Your task to perform on an android device: Search for jbl charge 4 on bestbuy.com, select the first entry, and add it to the cart. Image 0: 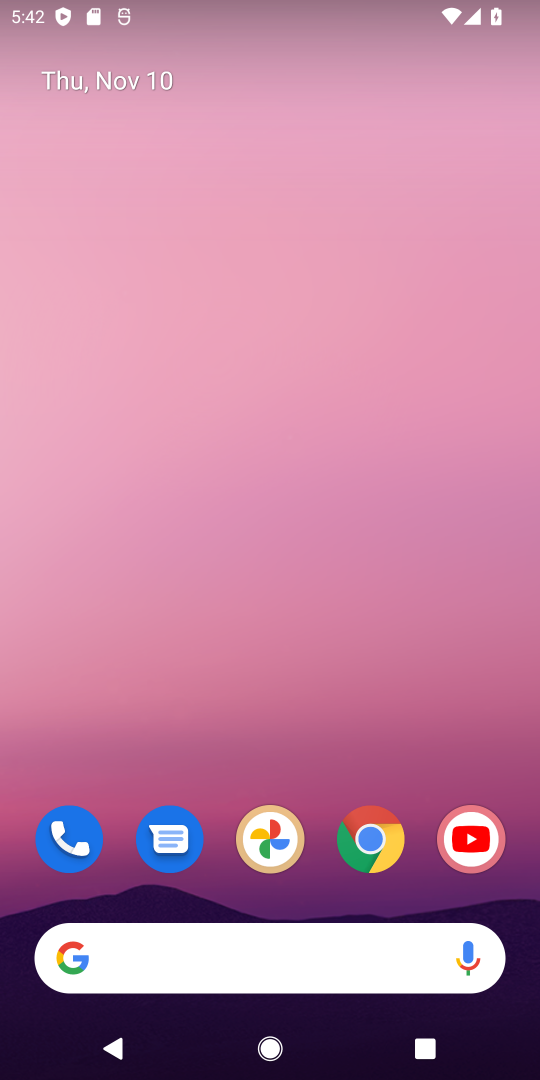
Step 0: click (373, 839)
Your task to perform on an android device: Search for jbl charge 4 on bestbuy.com, select the first entry, and add it to the cart. Image 1: 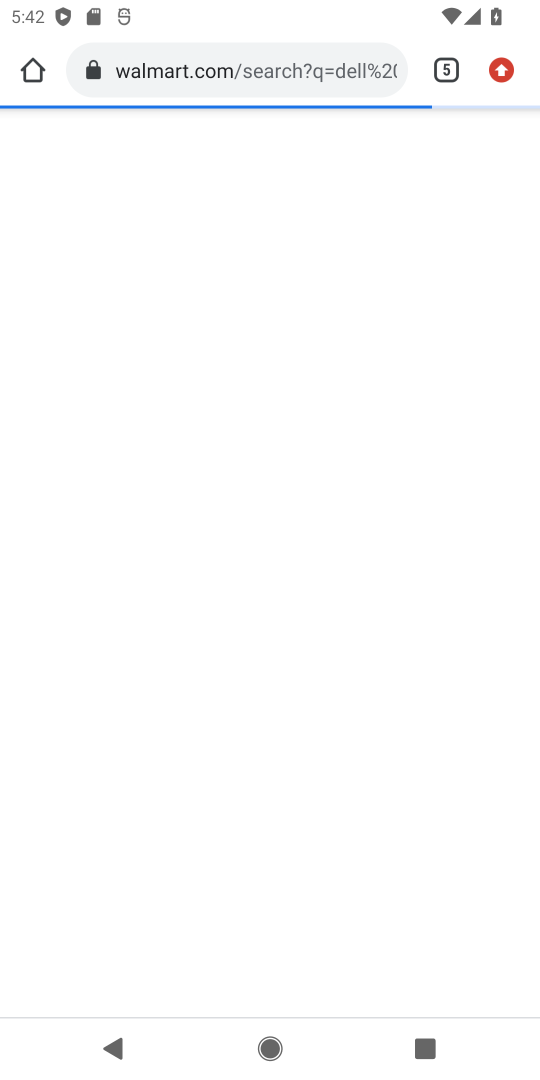
Step 1: click (446, 68)
Your task to perform on an android device: Search for jbl charge 4 on bestbuy.com, select the first entry, and add it to the cart. Image 2: 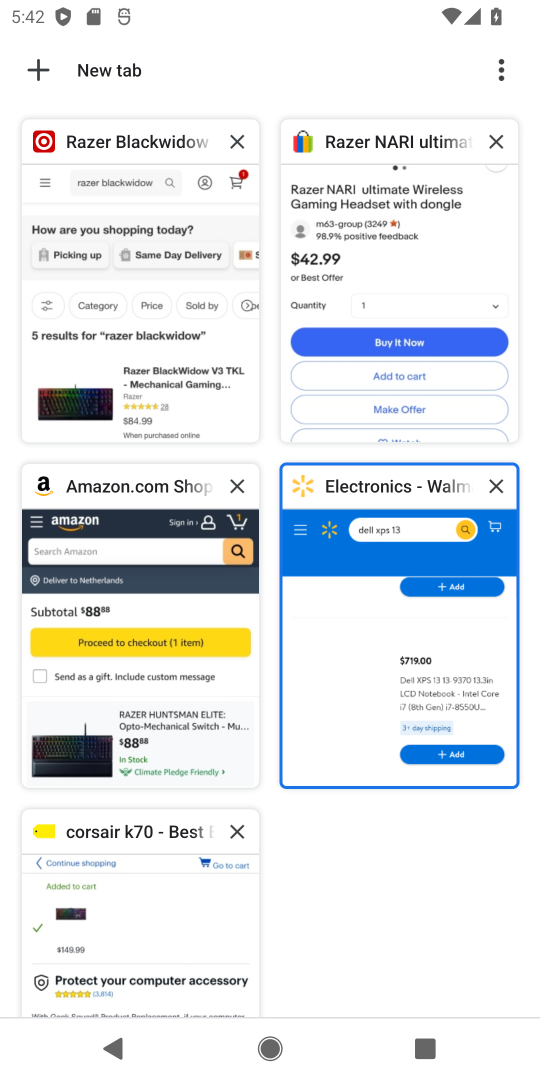
Step 2: click (145, 862)
Your task to perform on an android device: Search for jbl charge 4 on bestbuy.com, select the first entry, and add it to the cart. Image 3: 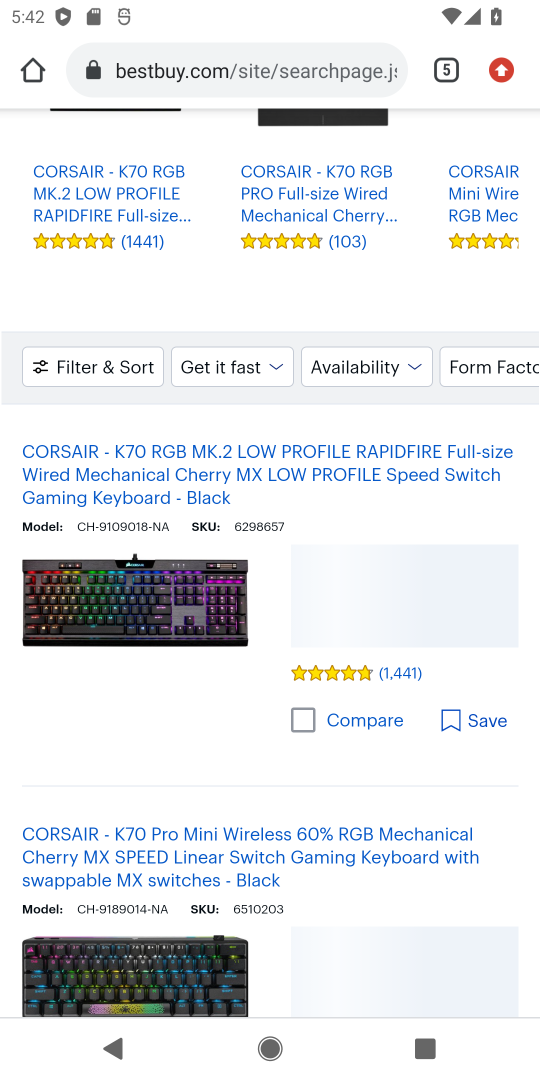
Step 3: drag from (311, 180) to (371, 1006)
Your task to perform on an android device: Search for jbl charge 4 on bestbuy.com, select the first entry, and add it to the cart. Image 4: 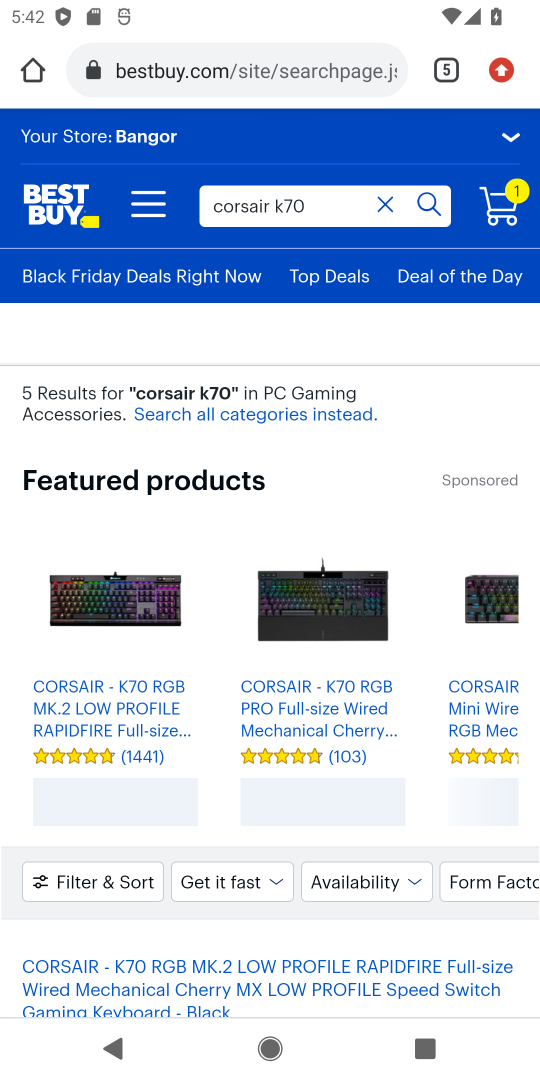
Step 4: click (387, 206)
Your task to perform on an android device: Search for jbl charge 4 on bestbuy.com, select the first entry, and add it to the cart. Image 5: 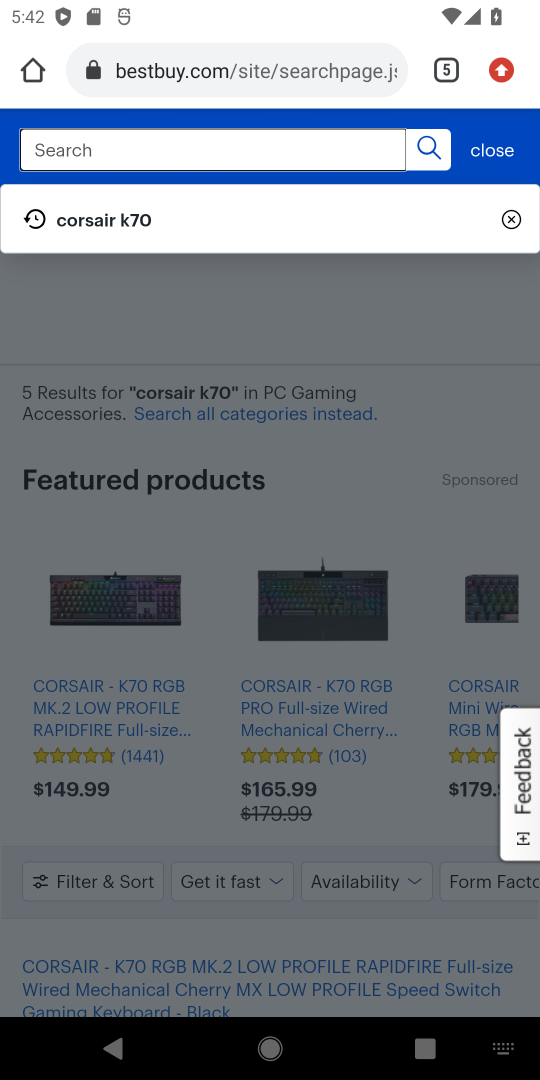
Step 5: type "jbl charge 4"
Your task to perform on an android device: Search for jbl charge 4 on bestbuy.com, select the first entry, and add it to the cart. Image 6: 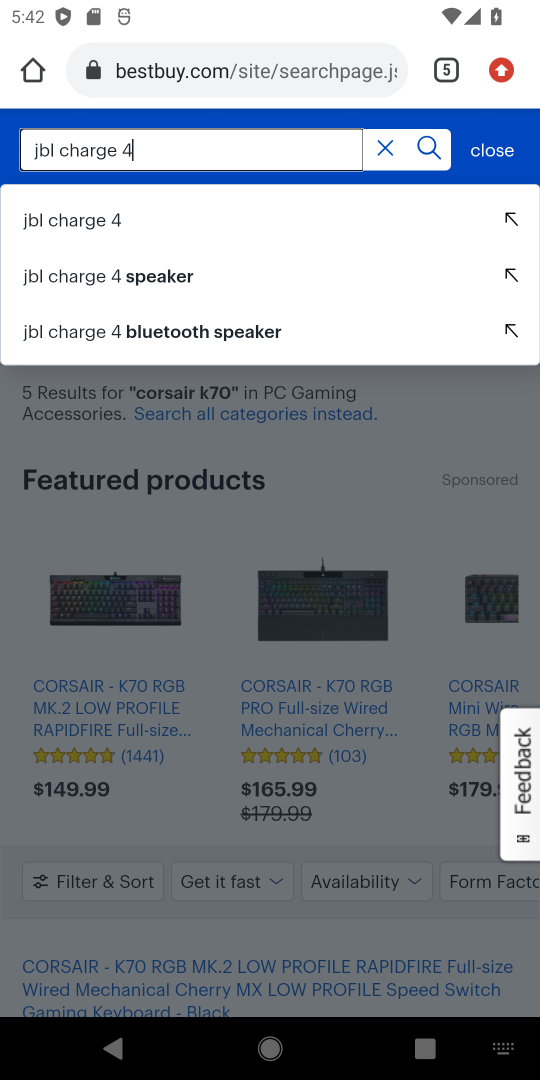
Step 6: click (96, 219)
Your task to perform on an android device: Search for jbl charge 4 on bestbuy.com, select the first entry, and add it to the cart. Image 7: 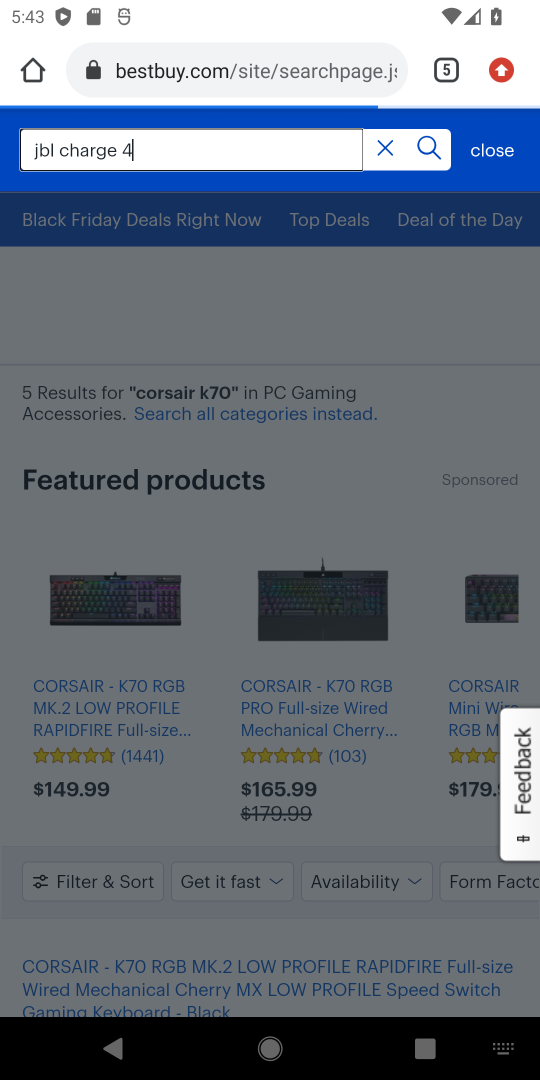
Step 7: click (424, 145)
Your task to perform on an android device: Search for jbl charge 4 on bestbuy.com, select the first entry, and add it to the cart. Image 8: 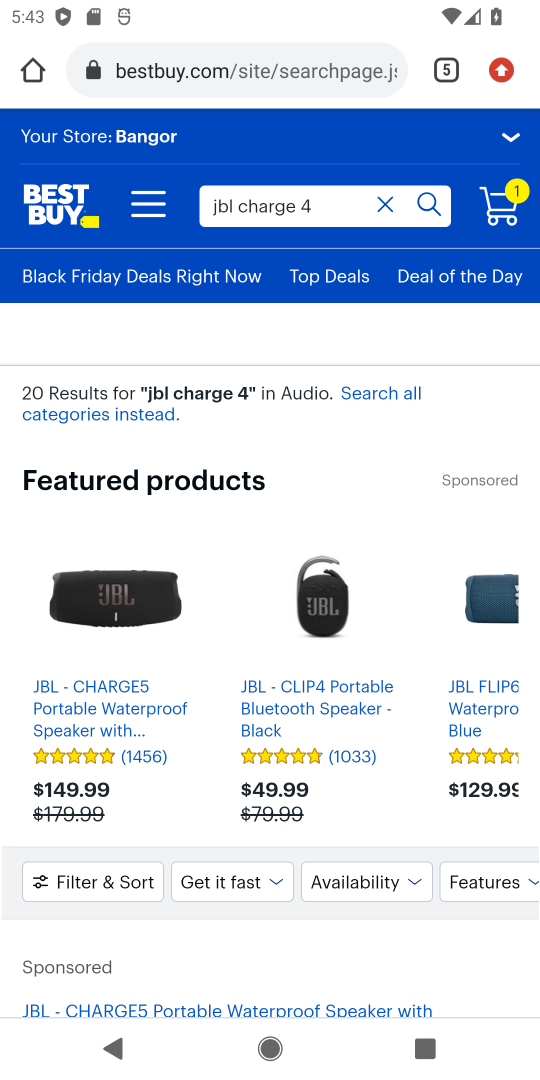
Step 8: drag from (330, 933) to (345, 415)
Your task to perform on an android device: Search for jbl charge 4 on bestbuy.com, select the first entry, and add it to the cart. Image 9: 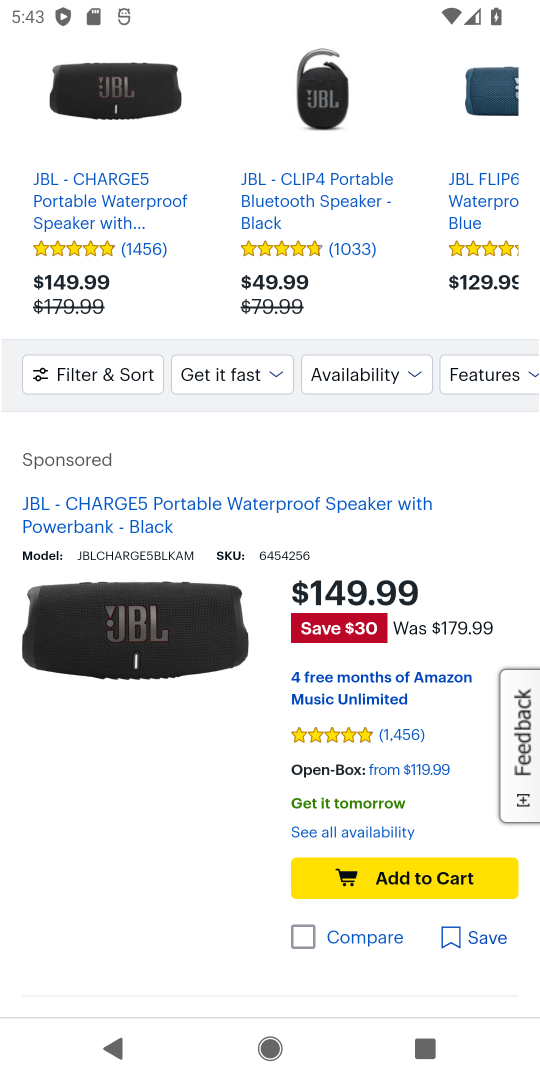
Step 9: click (448, 876)
Your task to perform on an android device: Search for jbl charge 4 on bestbuy.com, select the first entry, and add it to the cart. Image 10: 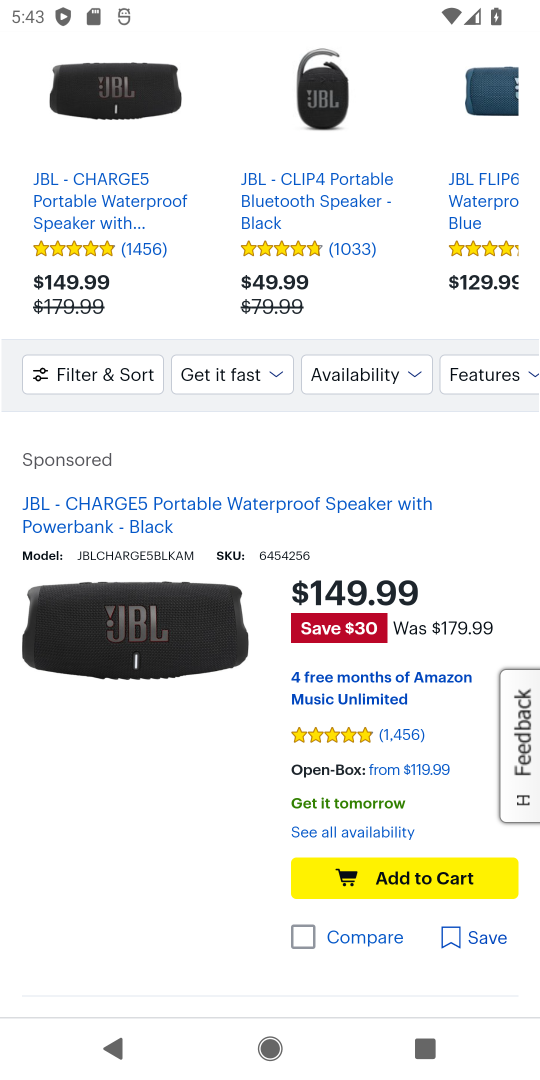
Step 10: task complete